Your task to perform on an android device: Go to display settings Image 0: 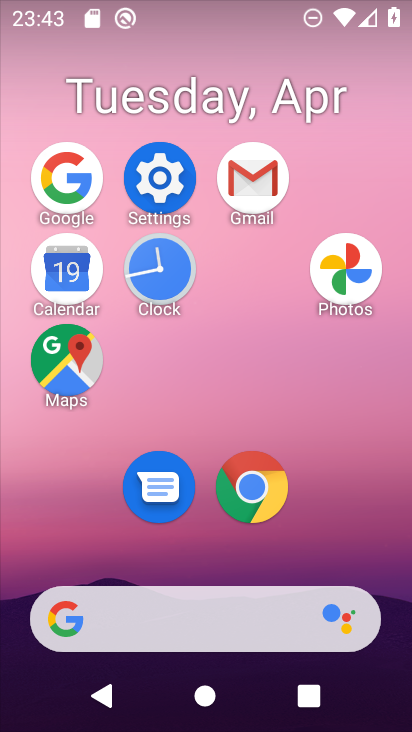
Step 0: click (175, 167)
Your task to perform on an android device: Go to display settings Image 1: 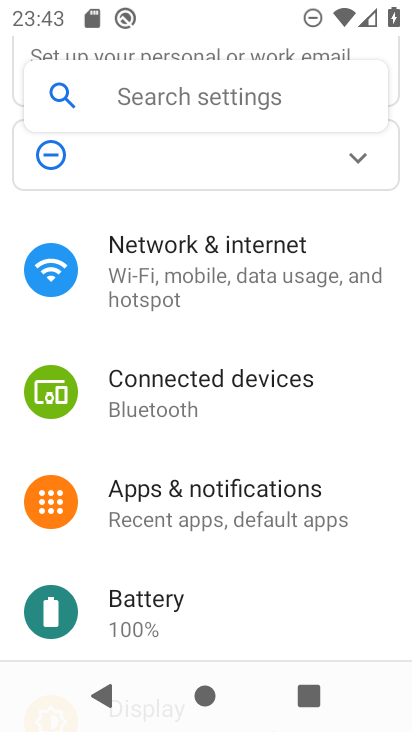
Step 1: drag from (227, 568) to (257, 132)
Your task to perform on an android device: Go to display settings Image 2: 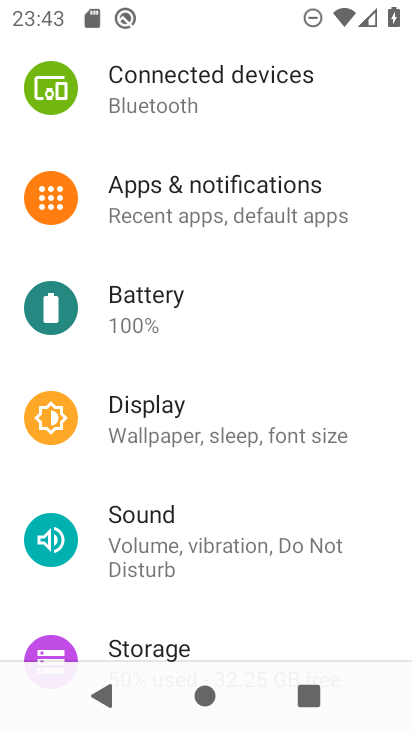
Step 2: click (260, 428)
Your task to perform on an android device: Go to display settings Image 3: 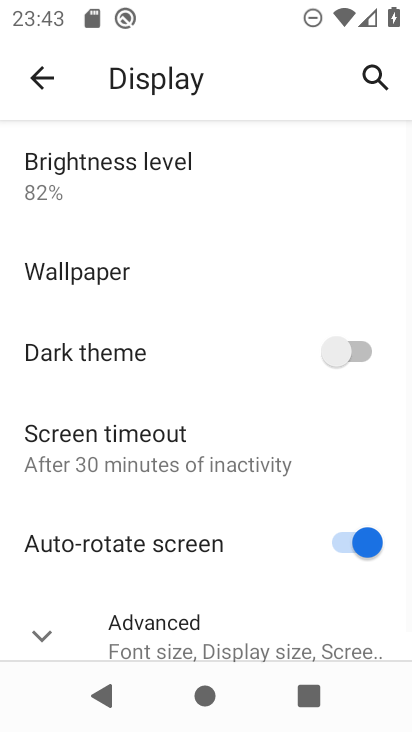
Step 3: task complete